Your task to perform on an android device: Open Google Chrome and open the bookmarks view Image 0: 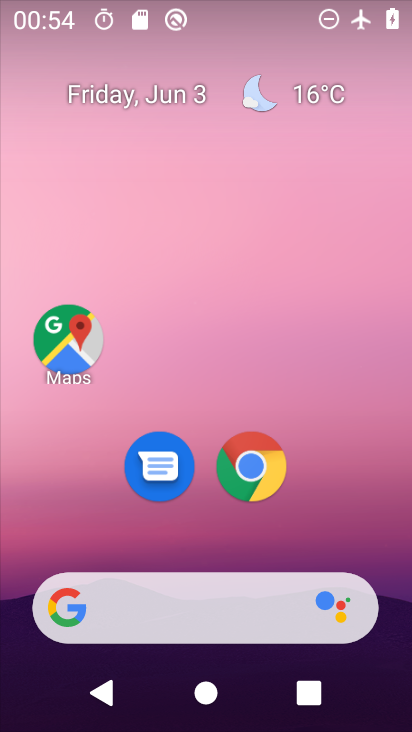
Step 0: click (257, 475)
Your task to perform on an android device: Open Google Chrome and open the bookmarks view Image 1: 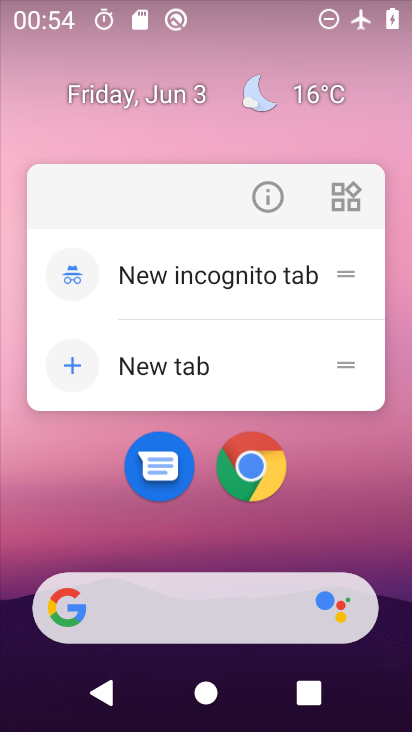
Step 1: click (259, 457)
Your task to perform on an android device: Open Google Chrome and open the bookmarks view Image 2: 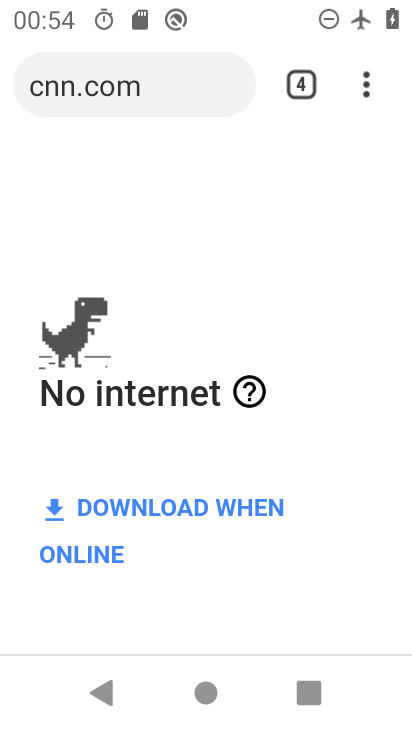
Step 2: click (356, 89)
Your task to perform on an android device: Open Google Chrome and open the bookmarks view Image 3: 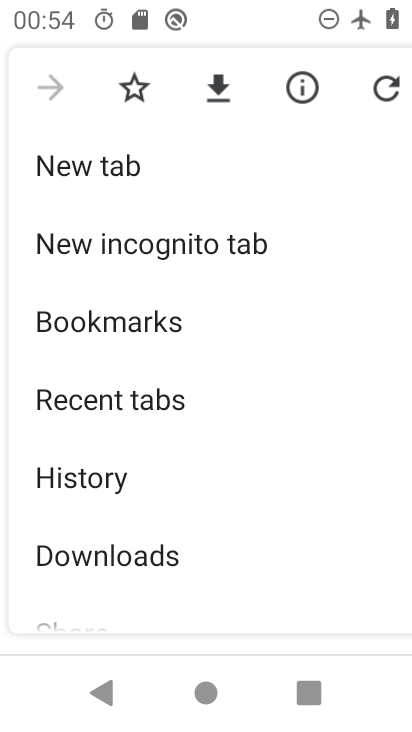
Step 3: click (197, 318)
Your task to perform on an android device: Open Google Chrome and open the bookmarks view Image 4: 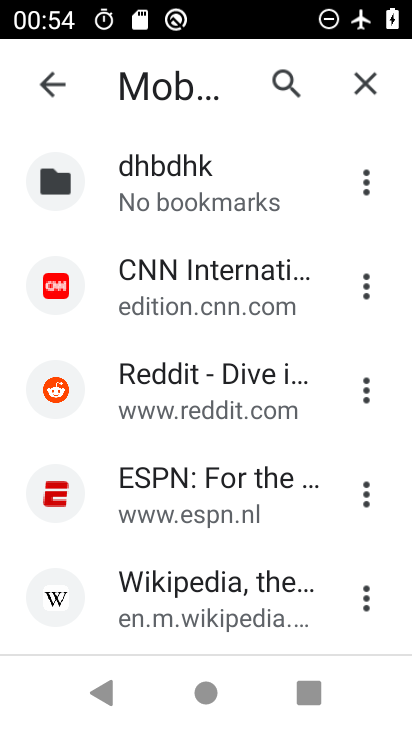
Step 4: task complete